Your task to perform on an android device: turn on showing notifications on the lock screen Image 0: 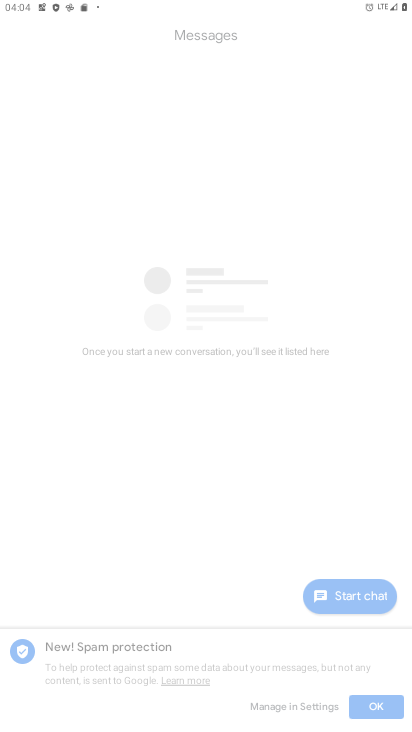
Step 0: press home button
Your task to perform on an android device: turn on showing notifications on the lock screen Image 1: 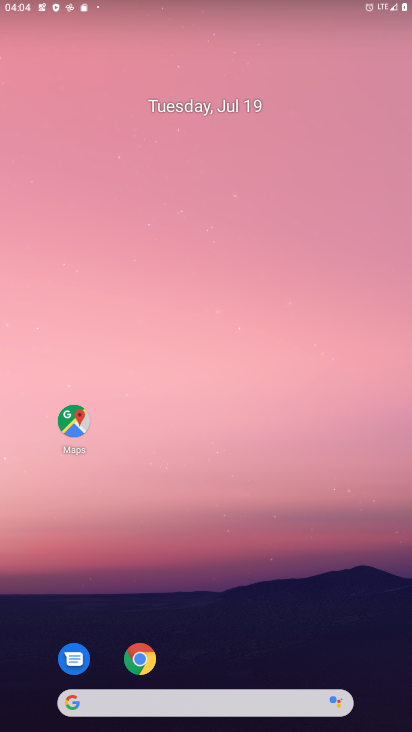
Step 1: drag from (228, 721) to (243, 23)
Your task to perform on an android device: turn on showing notifications on the lock screen Image 2: 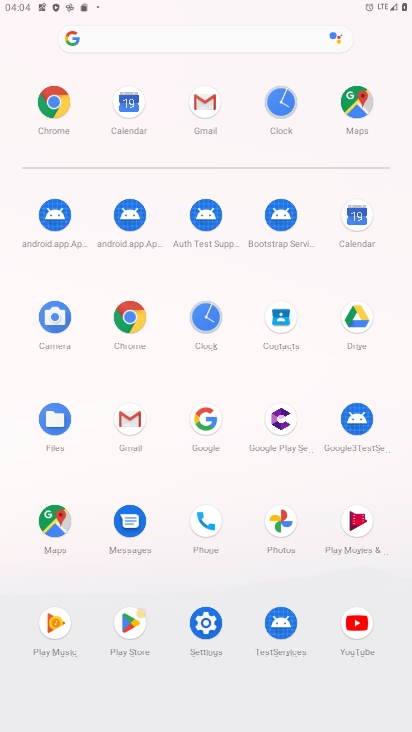
Step 2: click (222, 602)
Your task to perform on an android device: turn on showing notifications on the lock screen Image 3: 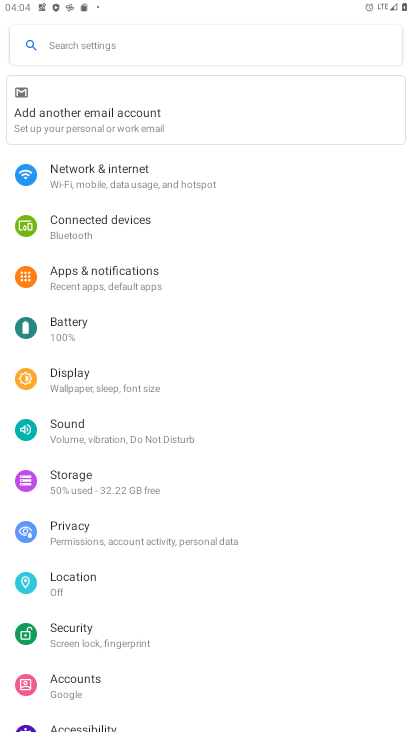
Step 3: click (64, 271)
Your task to perform on an android device: turn on showing notifications on the lock screen Image 4: 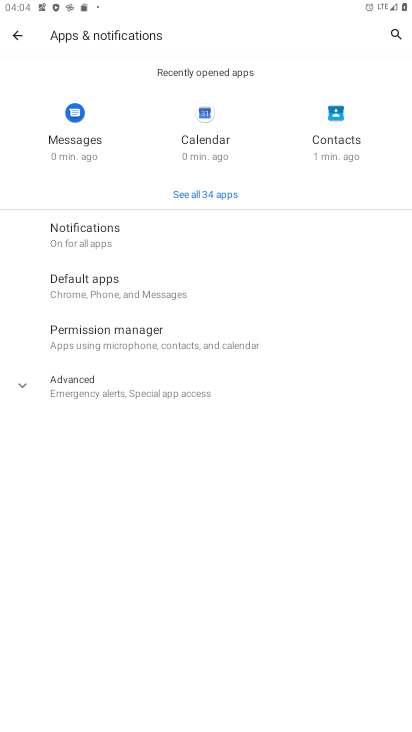
Step 4: click (64, 241)
Your task to perform on an android device: turn on showing notifications on the lock screen Image 5: 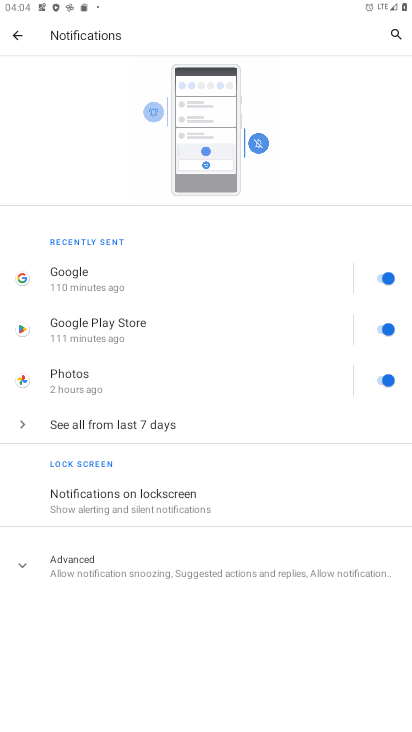
Step 5: click (71, 494)
Your task to perform on an android device: turn on showing notifications on the lock screen Image 6: 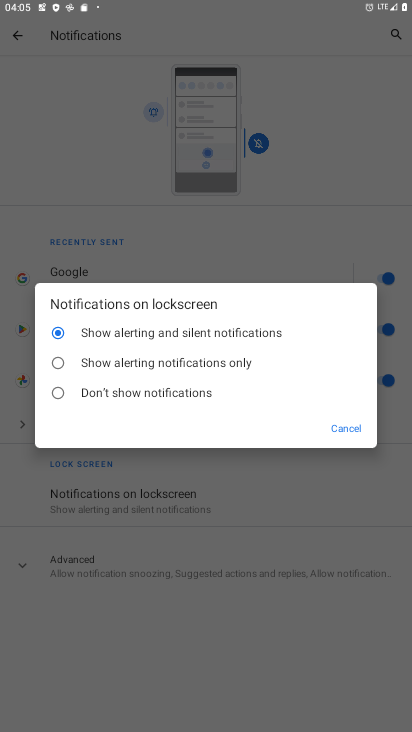
Step 6: click (183, 337)
Your task to perform on an android device: turn on showing notifications on the lock screen Image 7: 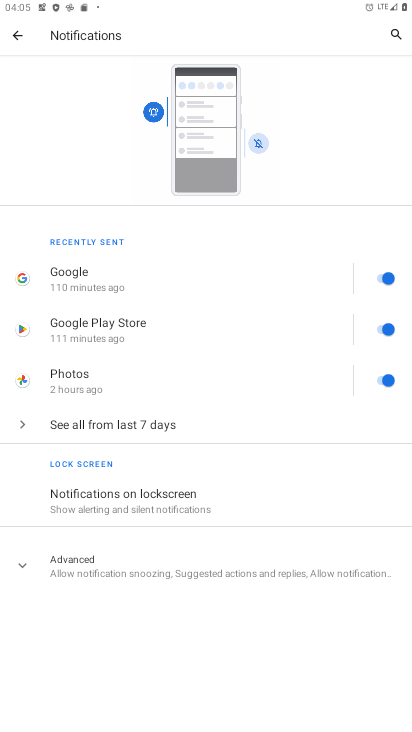
Step 7: task complete